Your task to perform on an android device: Go to battery settings Image 0: 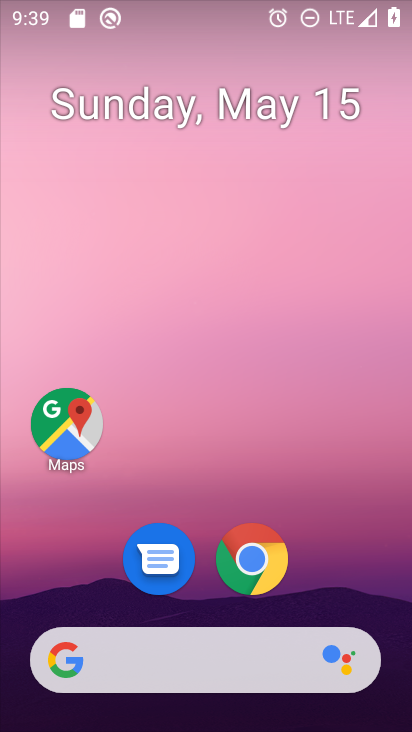
Step 0: drag from (339, 583) to (312, 57)
Your task to perform on an android device: Go to battery settings Image 1: 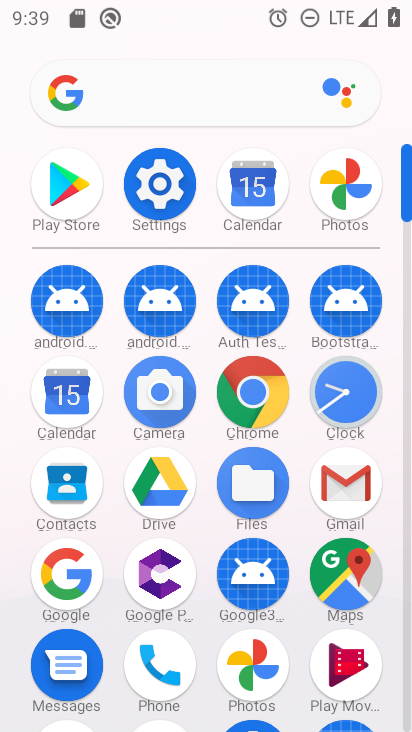
Step 1: click (172, 164)
Your task to perform on an android device: Go to battery settings Image 2: 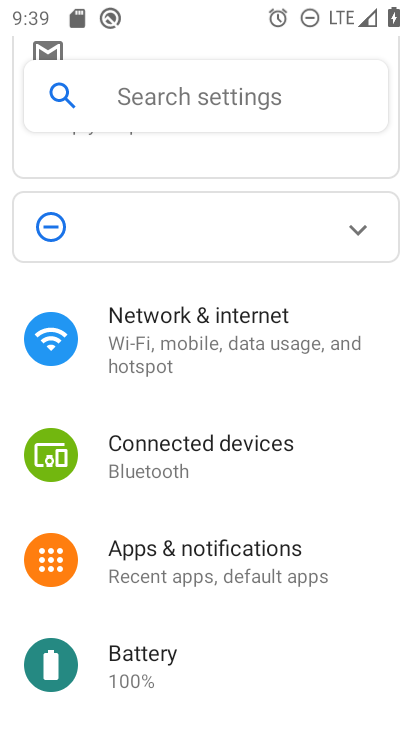
Step 2: click (171, 340)
Your task to perform on an android device: Go to battery settings Image 3: 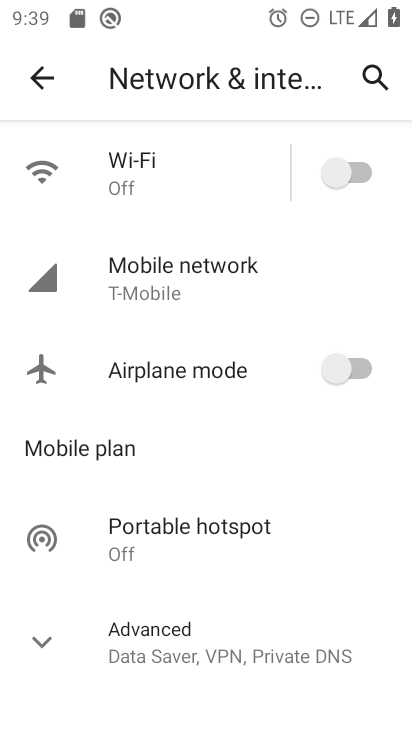
Step 3: click (331, 176)
Your task to perform on an android device: Go to battery settings Image 4: 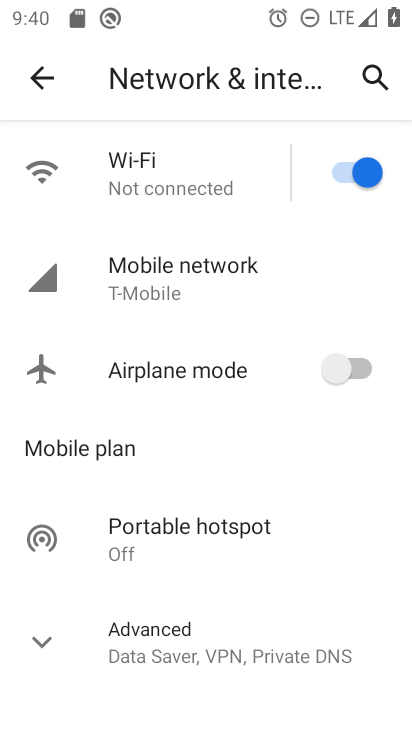
Step 4: click (45, 73)
Your task to perform on an android device: Go to battery settings Image 5: 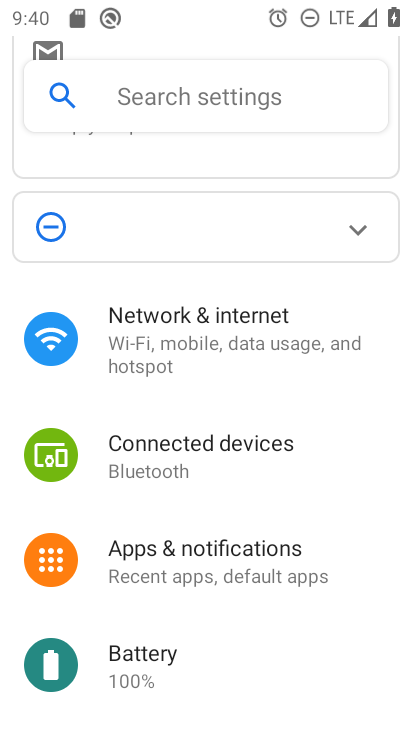
Step 5: drag from (144, 647) to (233, 377)
Your task to perform on an android device: Go to battery settings Image 6: 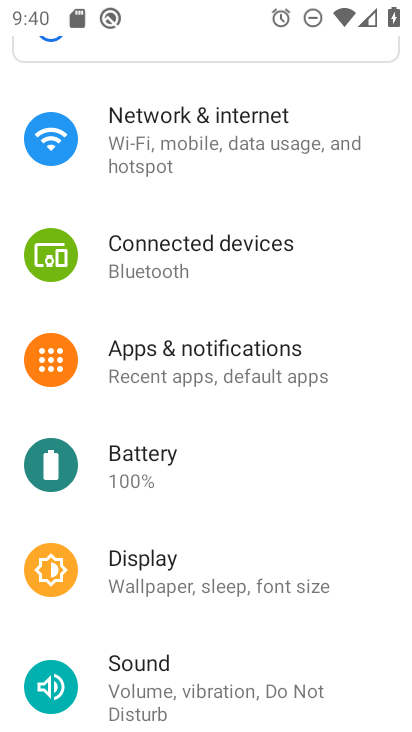
Step 6: click (205, 480)
Your task to perform on an android device: Go to battery settings Image 7: 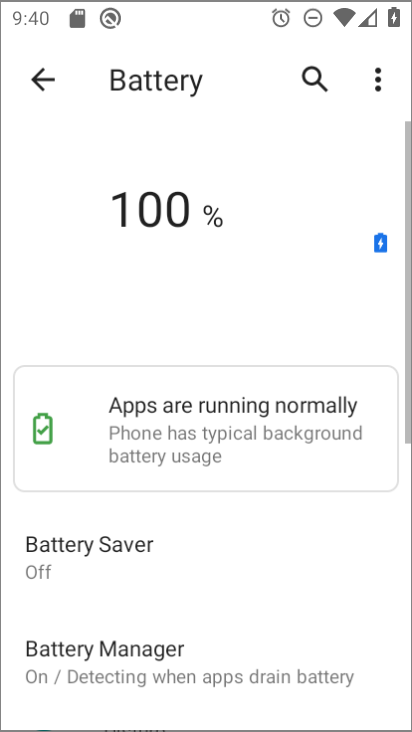
Step 7: task complete